Your task to perform on an android device: Go to display settings Image 0: 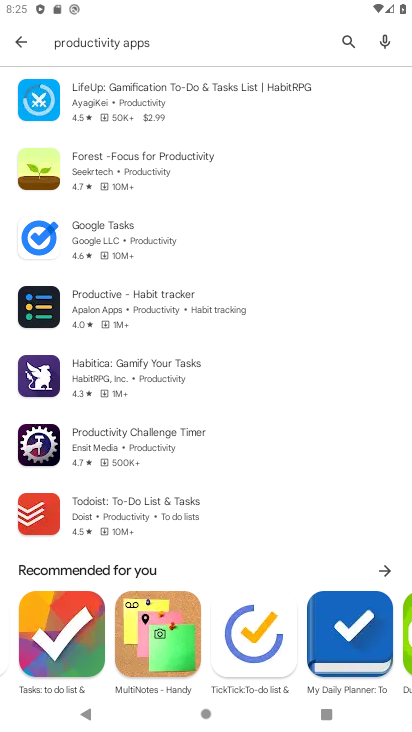
Step 0: press back button
Your task to perform on an android device: Go to display settings Image 1: 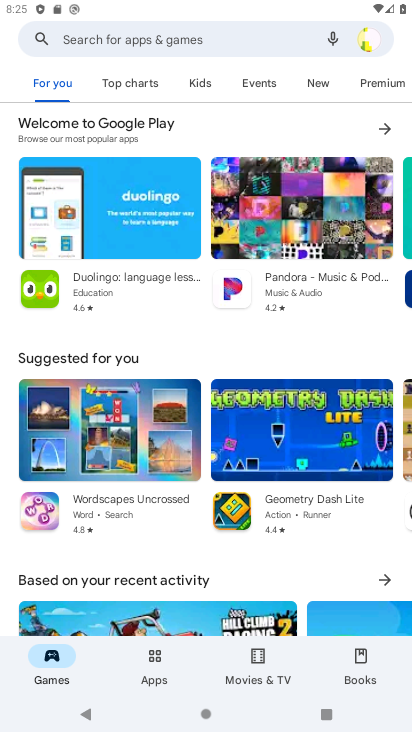
Step 1: press home button
Your task to perform on an android device: Go to display settings Image 2: 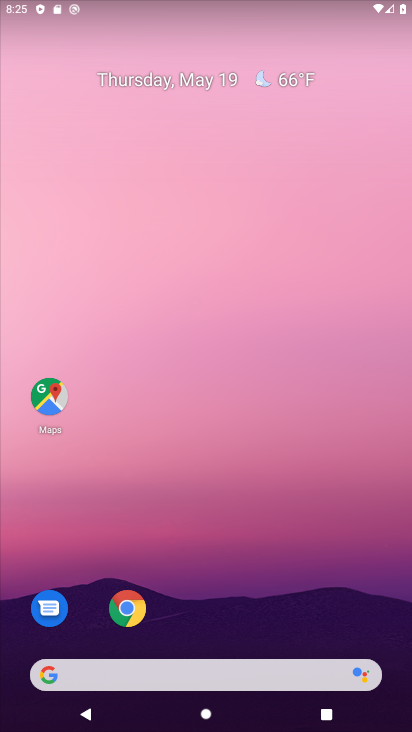
Step 2: drag from (226, 684) to (179, 99)
Your task to perform on an android device: Go to display settings Image 3: 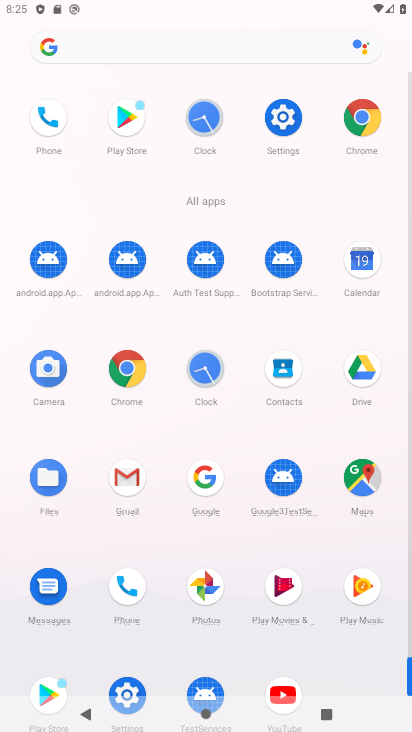
Step 3: click (282, 124)
Your task to perform on an android device: Go to display settings Image 4: 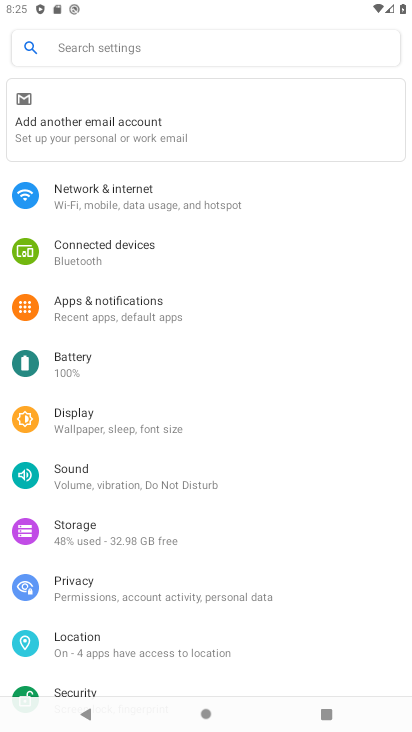
Step 4: click (78, 443)
Your task to perform on an android device: Go to display settings Image 5: 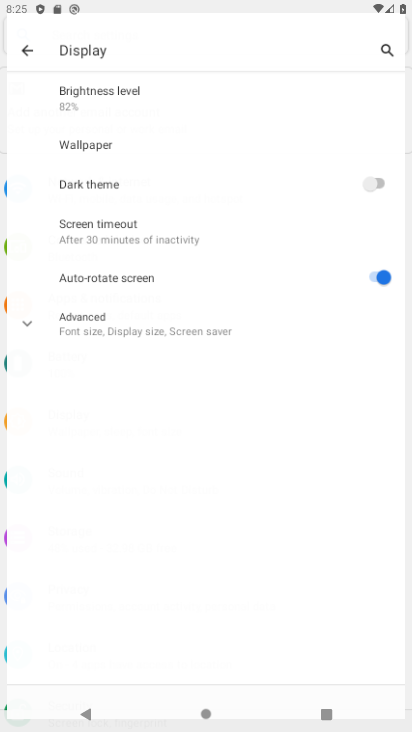
Step 5: click (77, 435)
Your task to perform on an android device: Go to display settings Image 6: 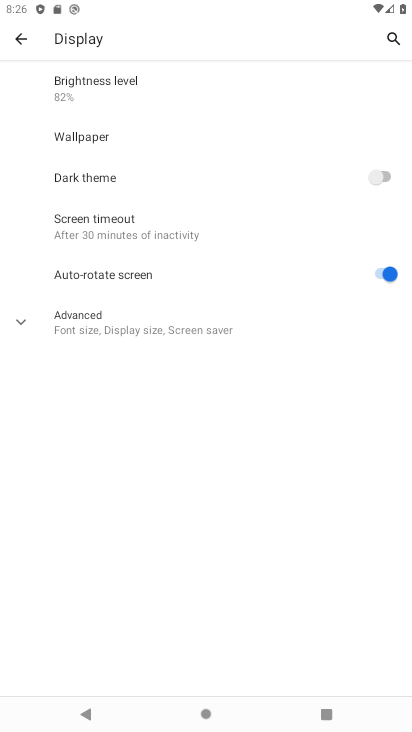
Step 6: task complete